Your task to perform on an android device: turn off improve location accuracy Image 0: 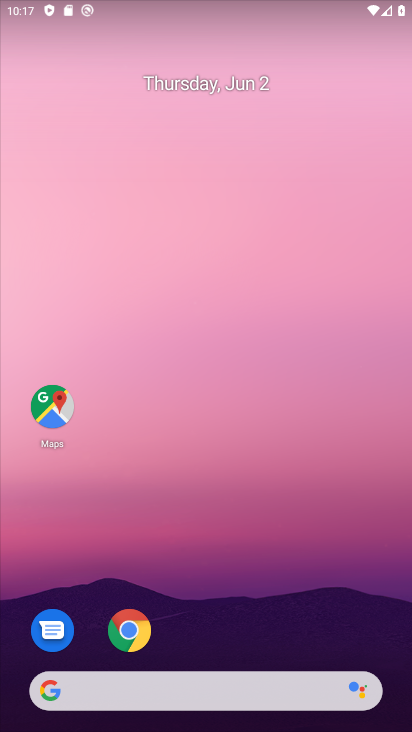
Step 0: drag from (254, 684) to (173, 142)
Your task to perform on an android device: turn off improve location accuracy Image 1: 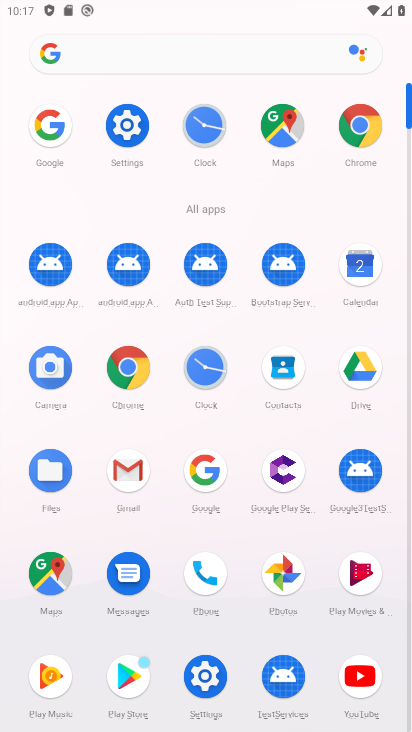
Step 1: click (131, 124)
Your task to perform on an android device: turn off improve location accuracy Image 2: 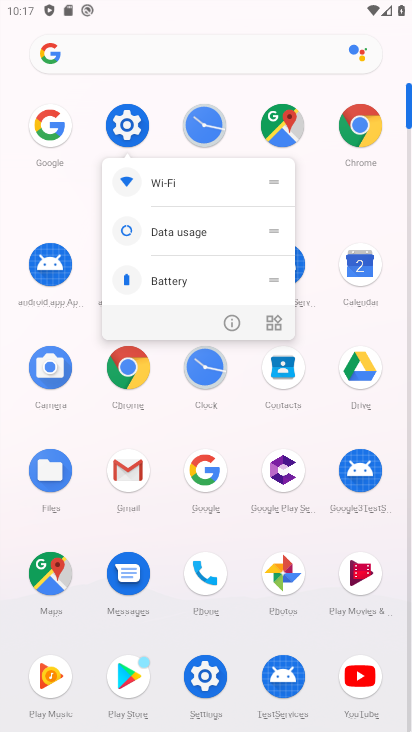
Step 2: click (130, 123)
Your task to perform on an android device: turn off improve location accuracy Image 3: 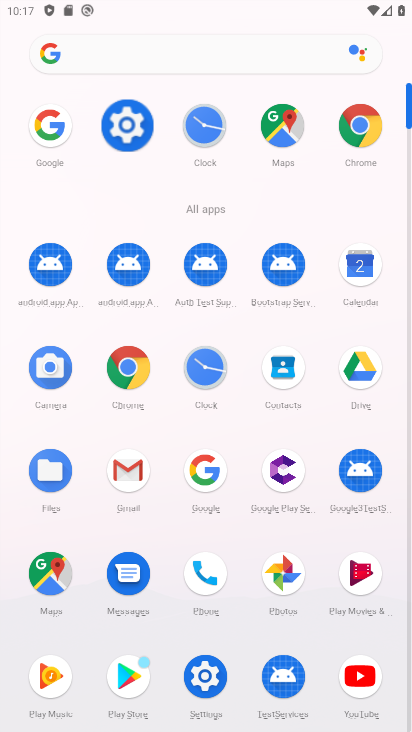
Step 3: click (130, 123)
Your task to perform on an android device: turn off improve location accuracy Image 4: 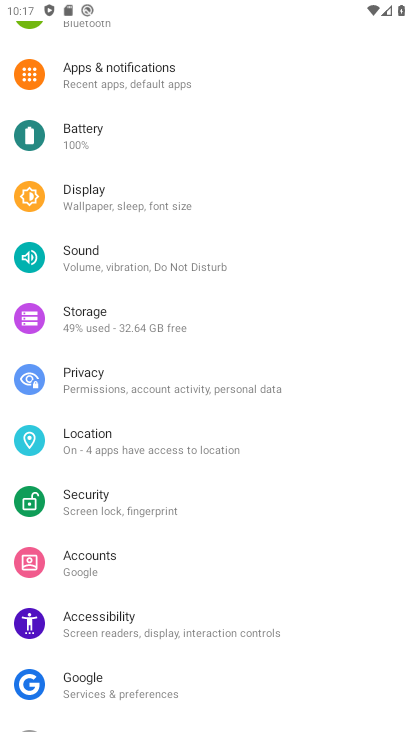
Step 4: click (91, 435)
Your task to perform on an android device: turn off improve location accuracy Image 5: 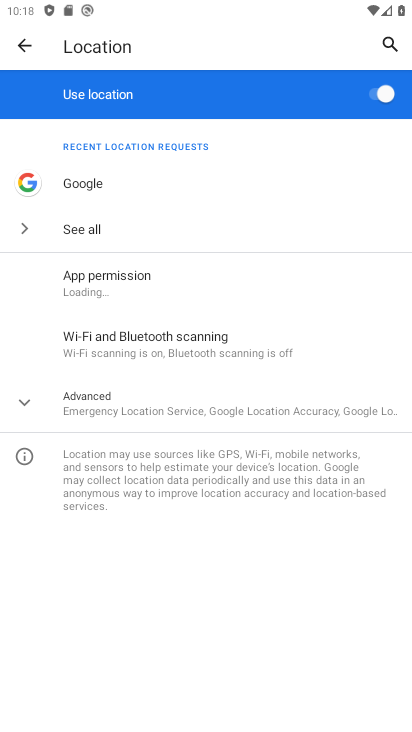
Step 5: click (384, 92)
Your task to perform on an android device: turn off improve location accuracy Image 6: 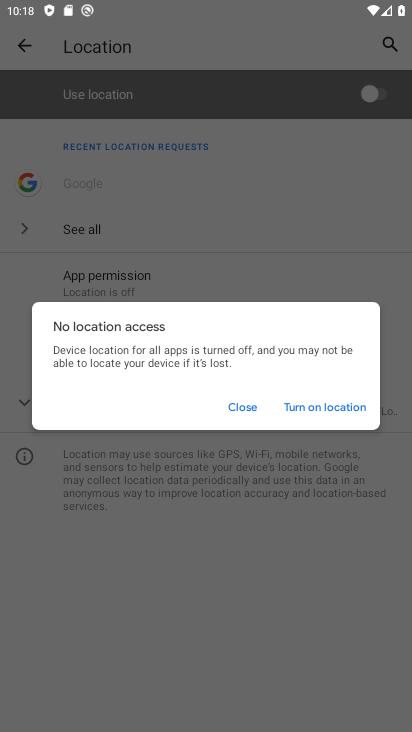
Step 6: click (236, 406)
Your task to perform on an android device: turn off improve location accuracy Image 7: 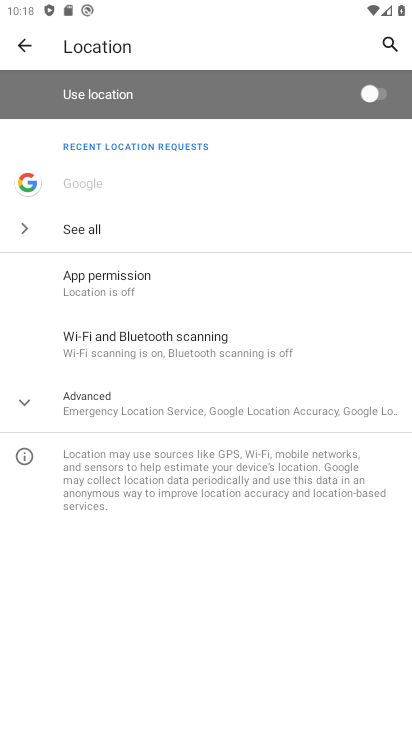
Step 7: task complete